Your task to perform on an android device: Turn off the flashlight Image 0: 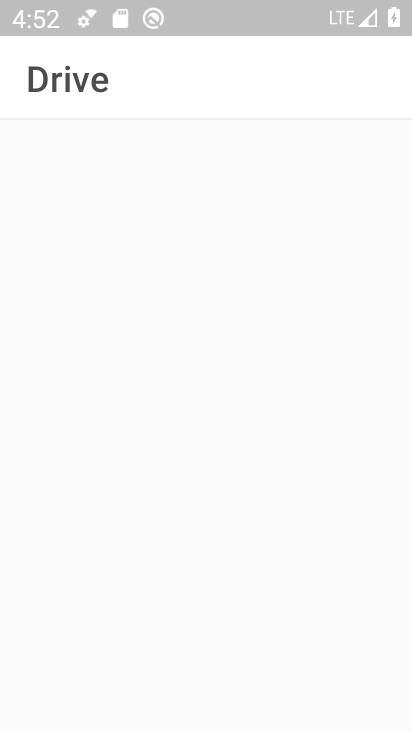
Step 0: press home button
Your task to perform on an android device: Turn off the flashlight Image 1: 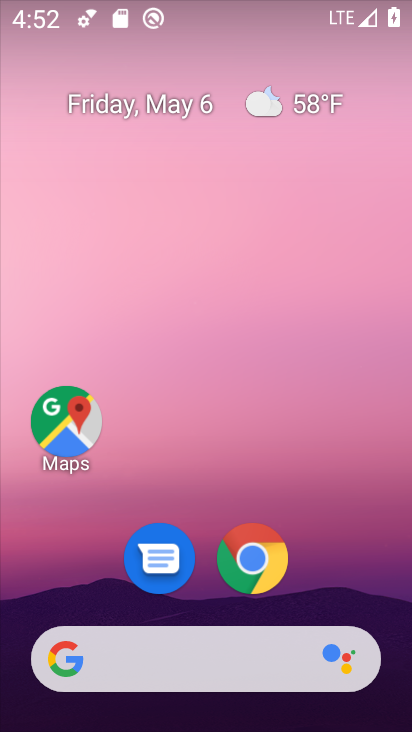
Step 1: drag from (276, 605) to (307, 61)
Your task to perform on an android device: Turn off the flashlight Image 2: 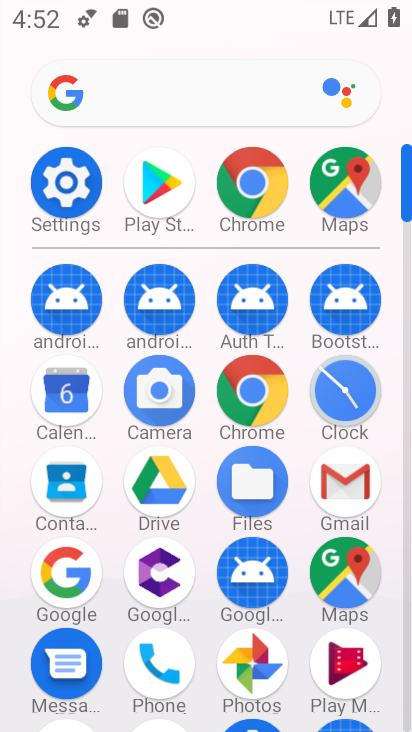
Step 2: drag from (300, 649) to (316, 295)
Your task to perform on an android device: Turn off the flashlight Image 3: 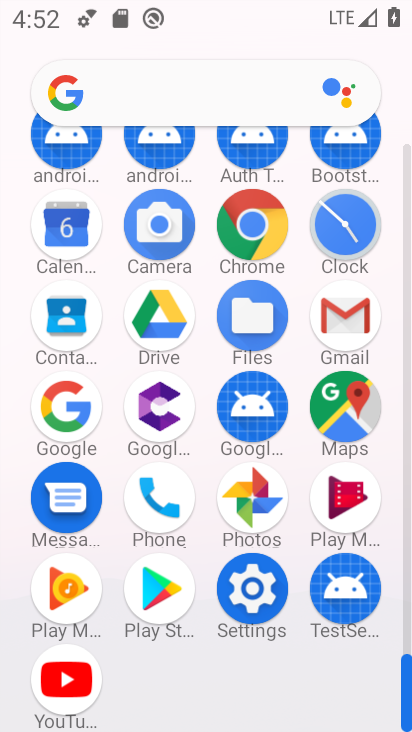
Step 3: click (253, 589)
Your task to perform on an android device: Turn off the flashlight Image 4: 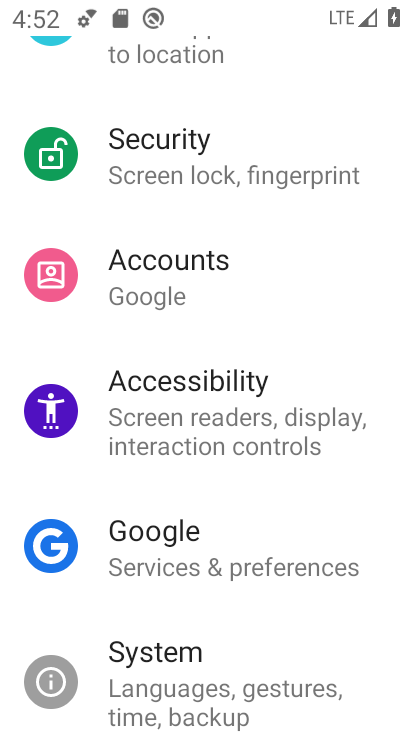
Step 4: task complete